Your task to perform on an android device: Show me some nice wallpapers for my tablet Image 0: 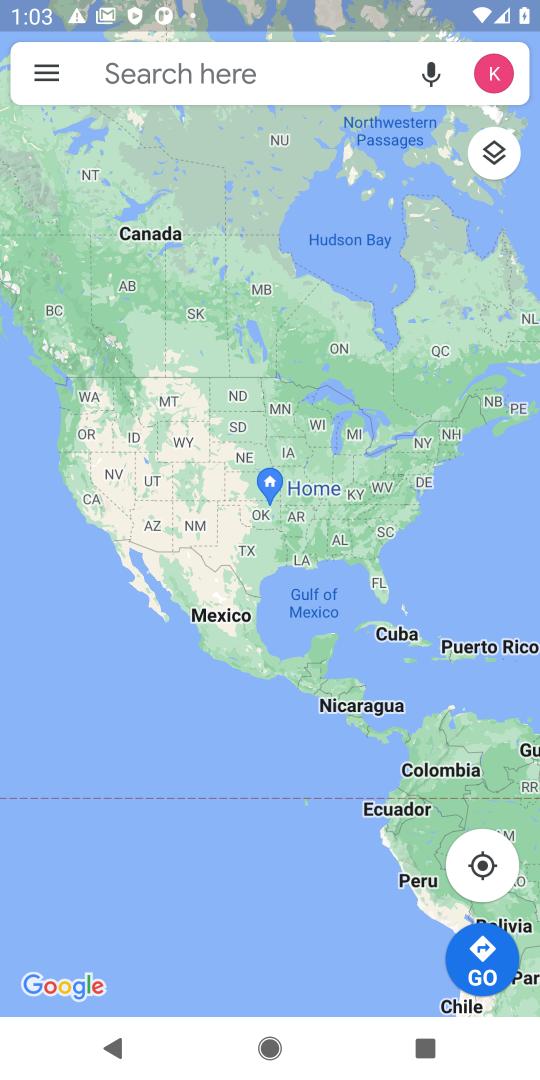
Step 0: press home button
Your task to perform on an android device: Show me some nice wallpapers for my tablet Image 1: 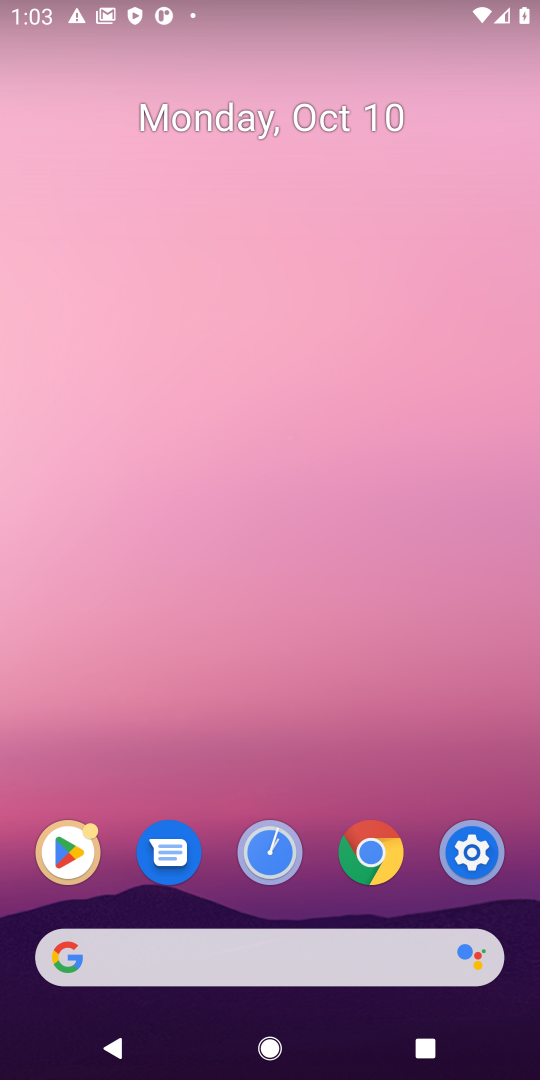
Step 1: click (331, 950)
Your task to perform on an android device: Show me some nice wallpapers for my tablet Image 2: 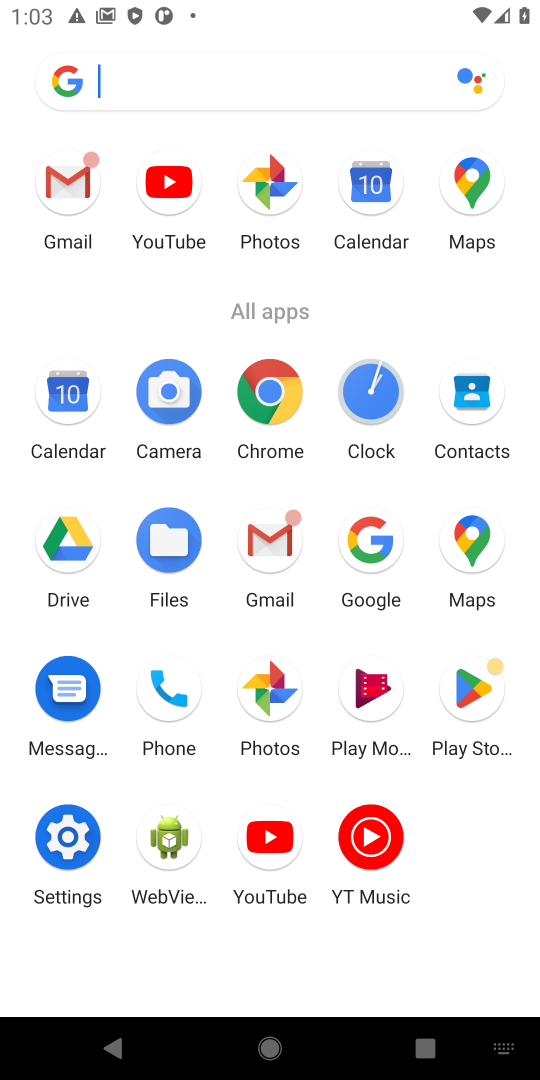
Step 2: type "Show me some nice wallpapers for my tablet"
Your task to perform on an android device: Show me some nice wallpapers for my tablet Image 3: 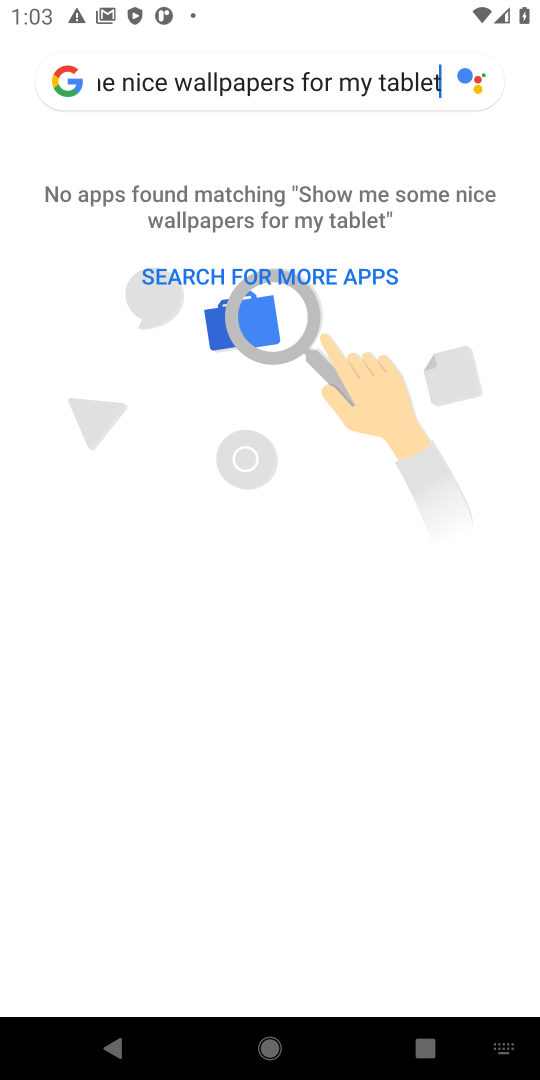
Step 3: type ""
Your task to perform on an android device: Show me some nice wallpapers for my tablet Image 4: 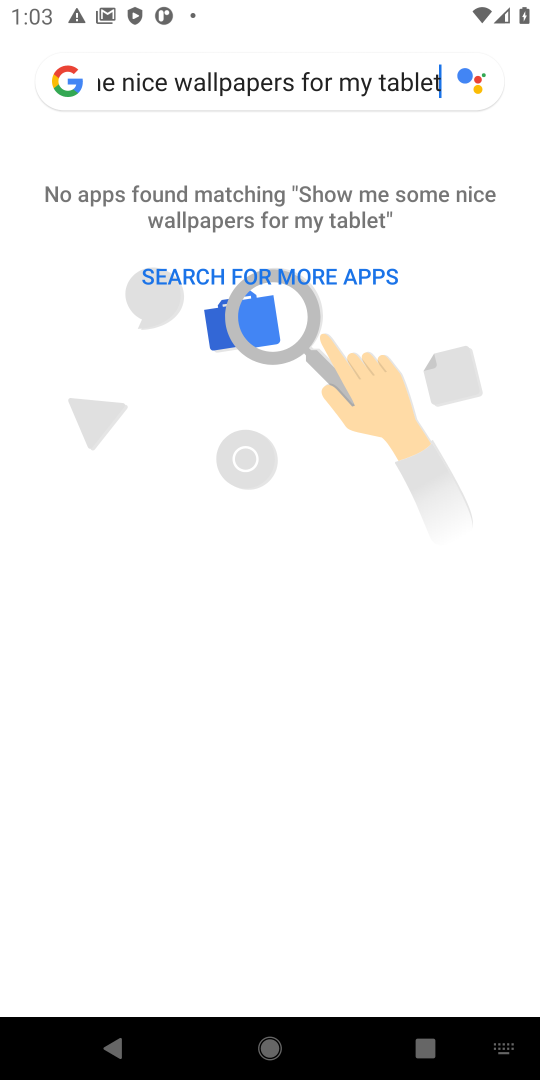
Step 4: press home button
Your task to perform on an android device: Show me some nice wallpapers for my tablet Image 5: 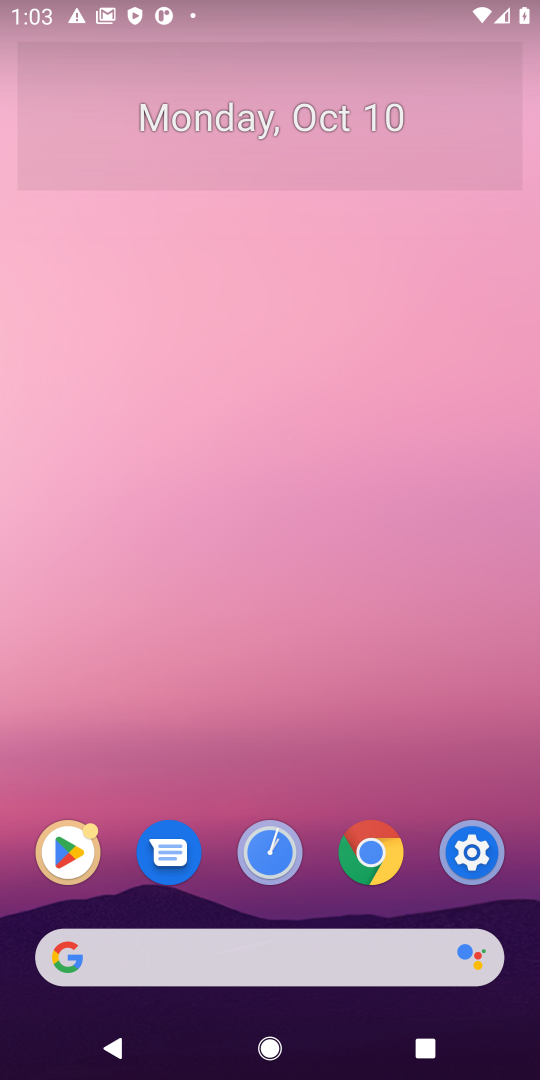
Step 5: click (316, 937)
Your task to perform on an android device: Show me some nice wallpapers for my tablet Image 6: 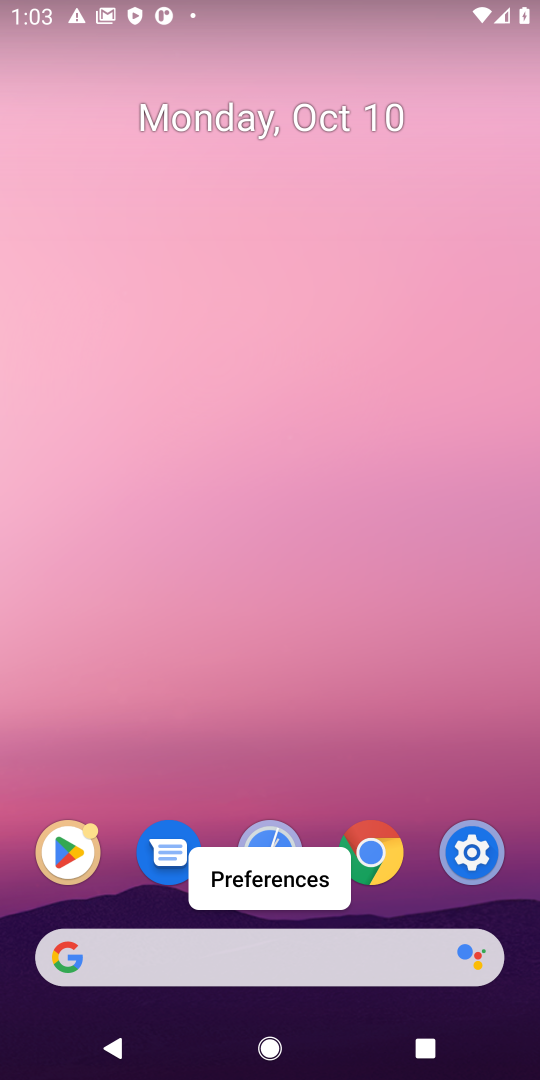
Step 6: click (353, 857)
Your task to perform on an android device: Show me some nice wallpapers for my tablet Image 7: 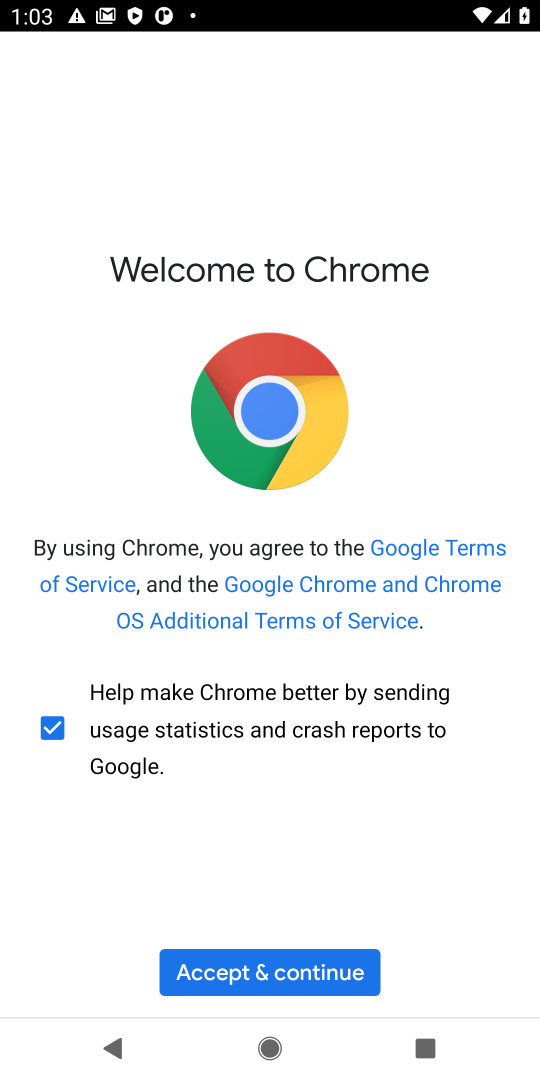
Step 7: click (265, 965)
Your task to perform on an android device: Show me some nice wallpapers for my tablet Image 8: 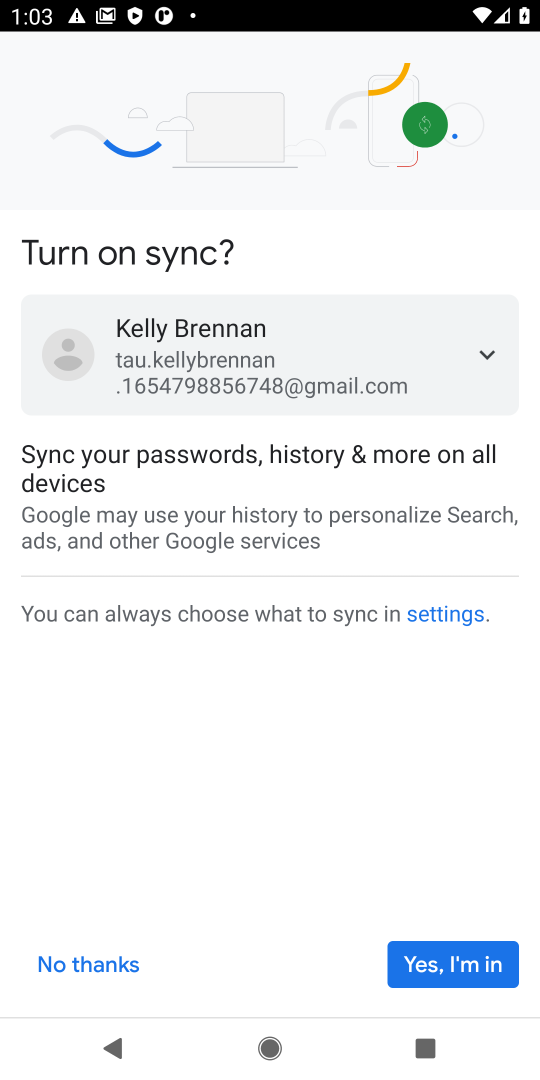
Step 8: click (430, 982)
Your task to perform on an android device: Show me some nice wallpapers for my tablet Image 9: 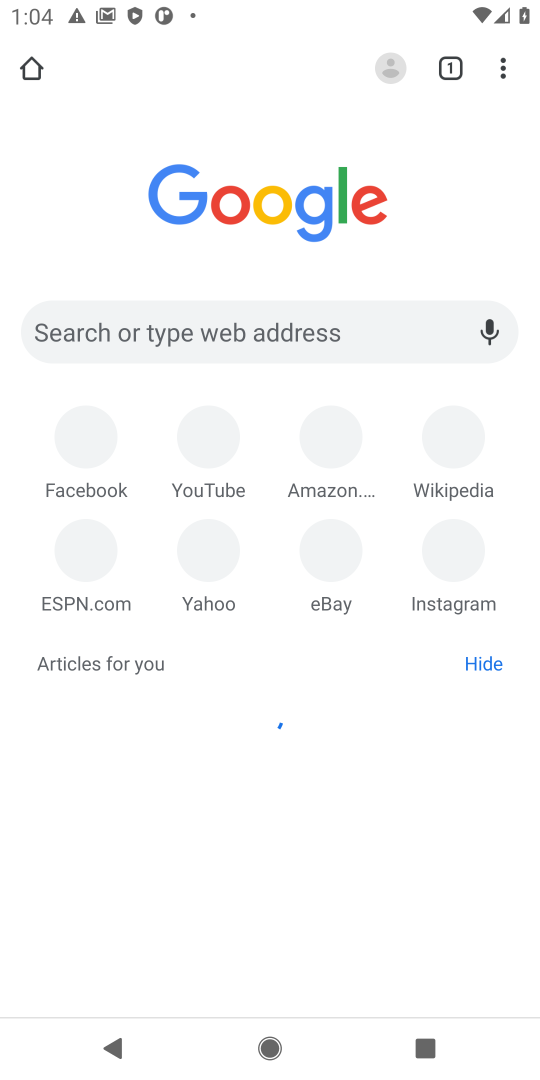
Step 9: click (261, 335)
Your task to perform on an android device: Show me some nice wallpapers for my tablet Image 10: 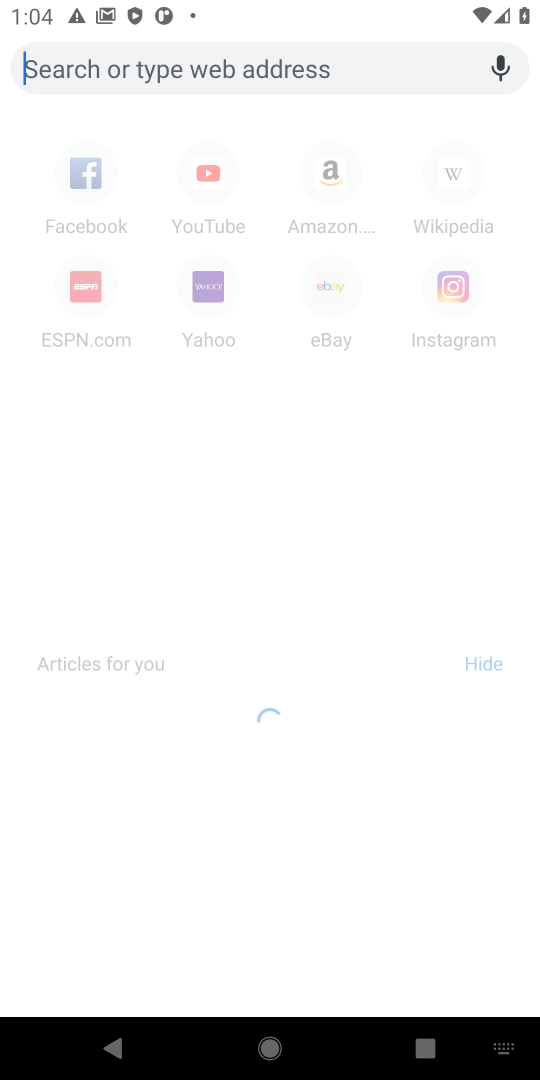
Step 10: type "Show me some nice wallpapers for my tablet"
Your task to perform on an android device: Show me some nice wallpapers for my tablet Image 11: 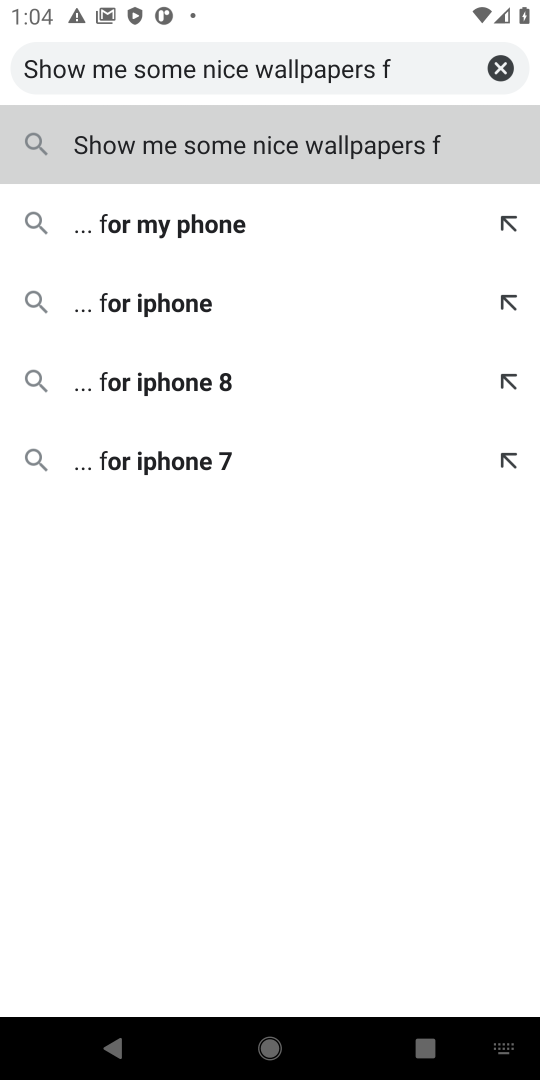
Step 11: type ""
Your task to perform on an android device: Show me some nice wallpapers for my tablet Image 12: 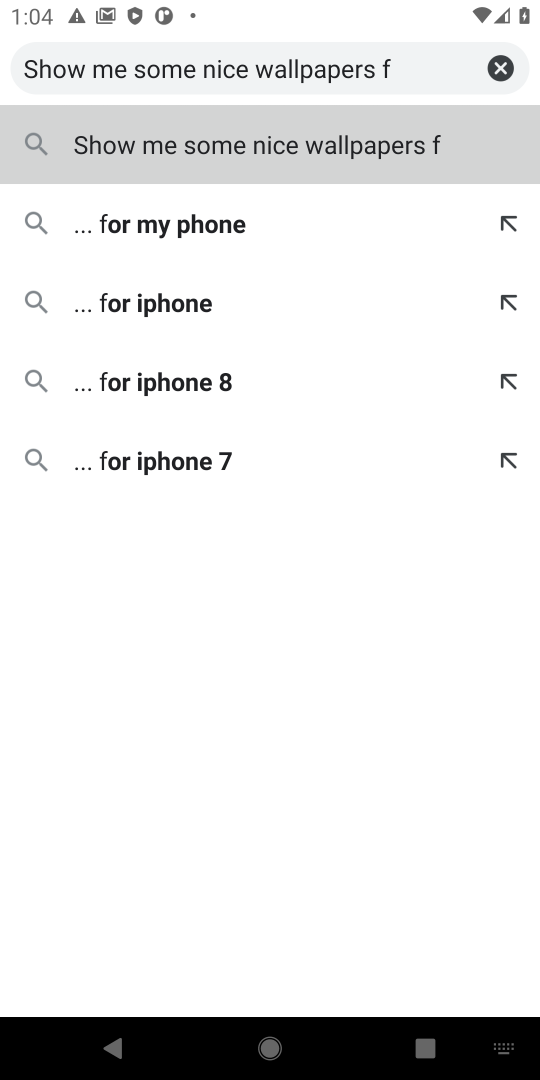
Step 12: click (376, 123)
Your task to perform on an android device: Show me some nice wallpapers for my tablet Image 13: 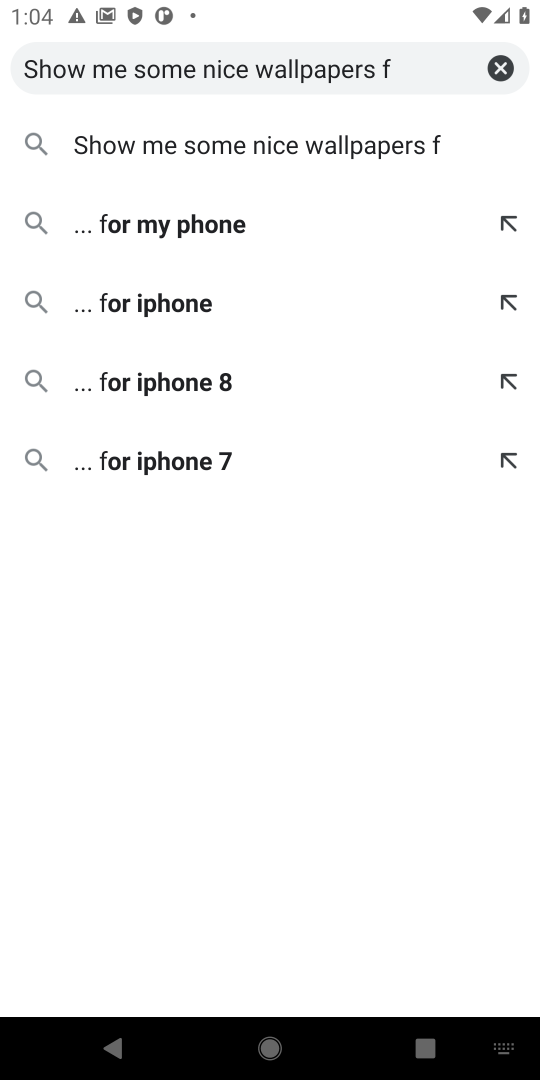
Step 13: click (379, 138)
Your task to perform on an android device: Show me some nice wallpapers for my tablet Image 14: 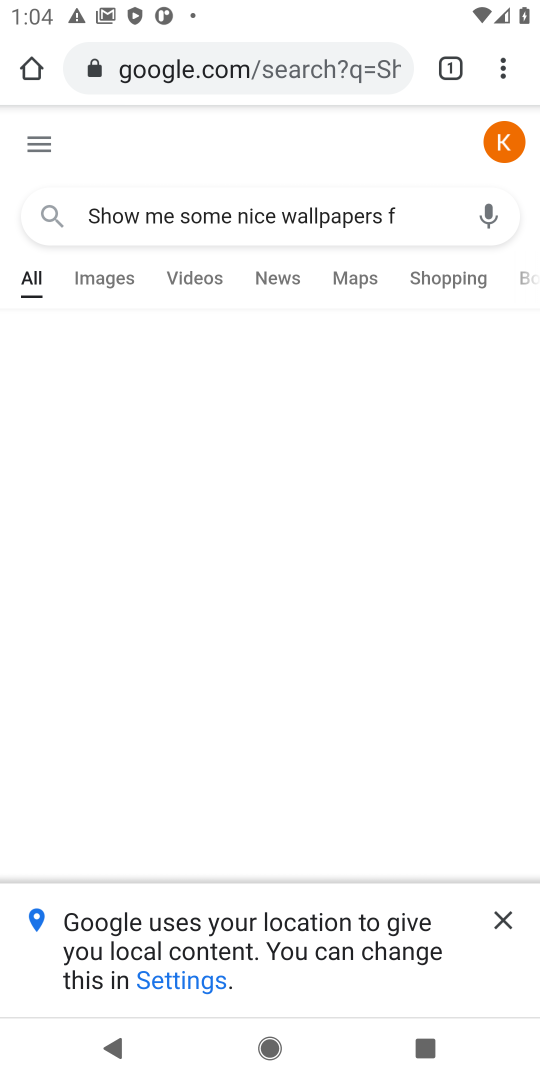
Step 14: click (499, 932)
Your task to perform on an android device: Show me some nice wallpapers for my tablet Image 15: 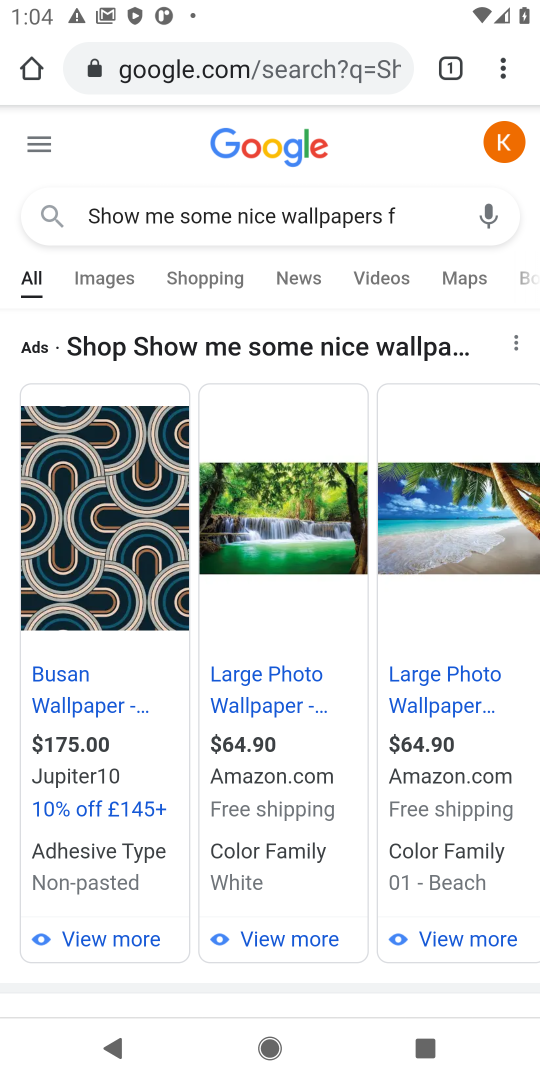
Step 15: drag from (357, 921) to (423, 299)
Your task to perform on an android device: Show me some nice wallpapers for my tablet Image 16: 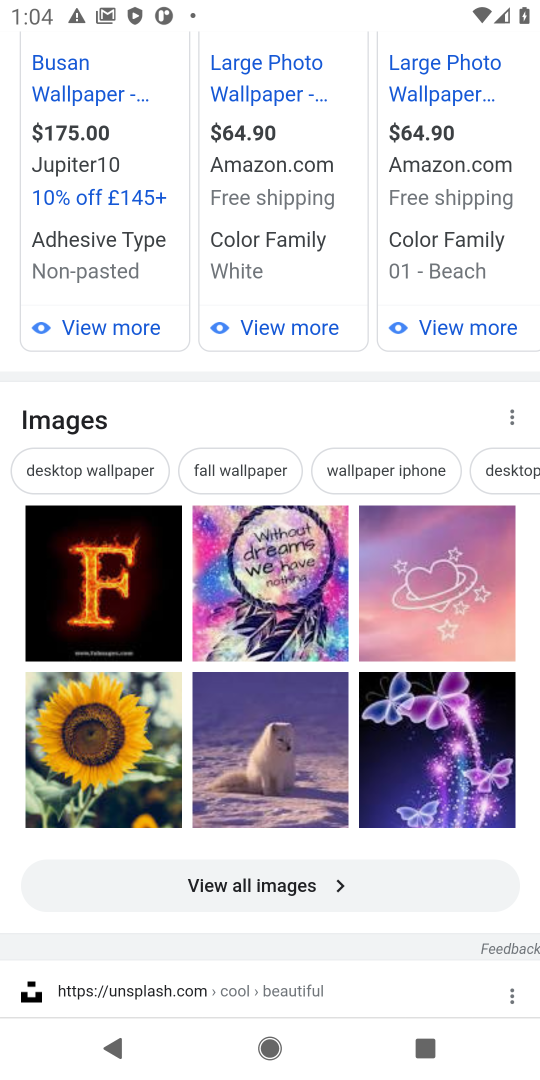
Step 16: drag from (351, 485) to (361, 301)
Your task to perform on an android device: Show me some nice wallpapers for my tablet Image 17: 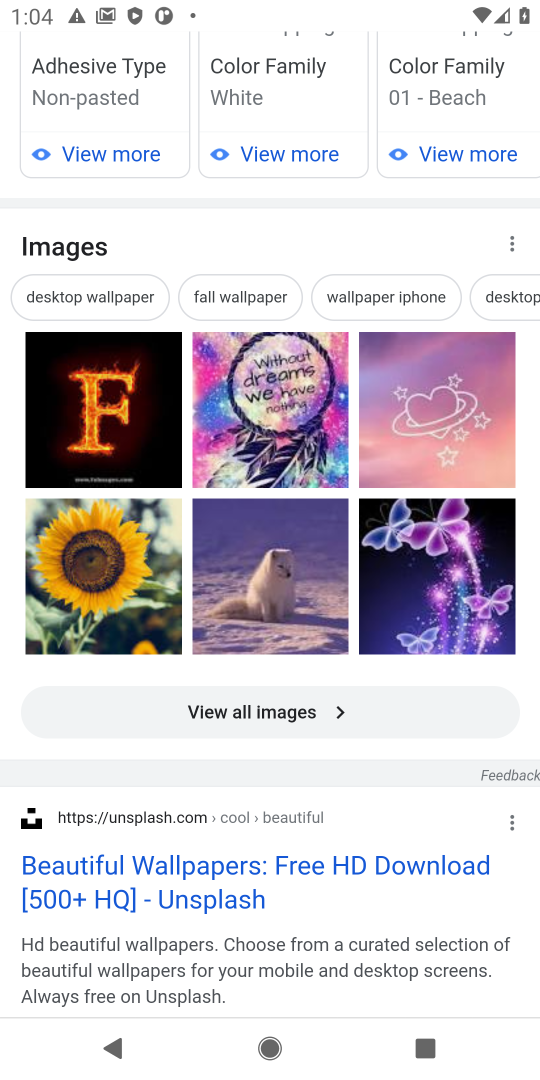
Step 17: click (258, 693)
Your task to perform on an android device: Show me some nice wallpapers for my tablet Image 18: 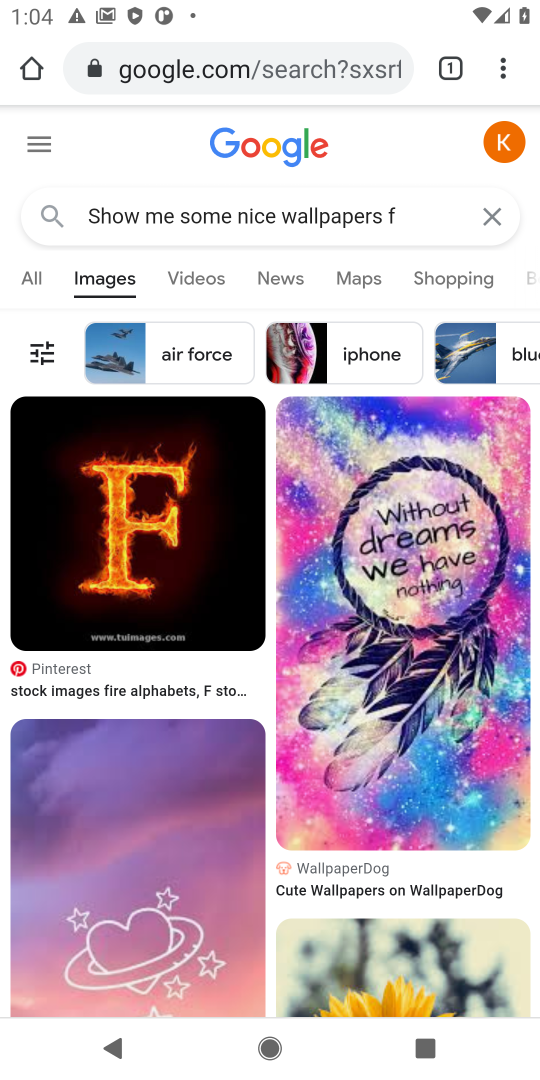
Step 18: drag from (328, 866) to (332, 447)
Your task to perform on an android device: Show me some nice wallpapers for my tablet Image 19: 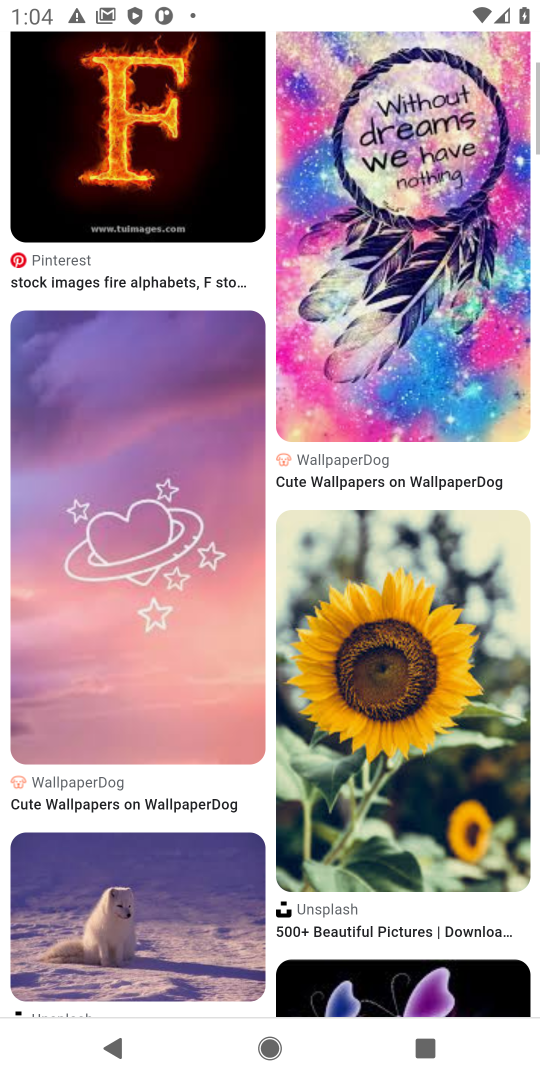
Step 19: drag from (302, 862) to (291, 442)
Your task to perform on an android device: Show me some nice wallpapers for my tablet Image 20: 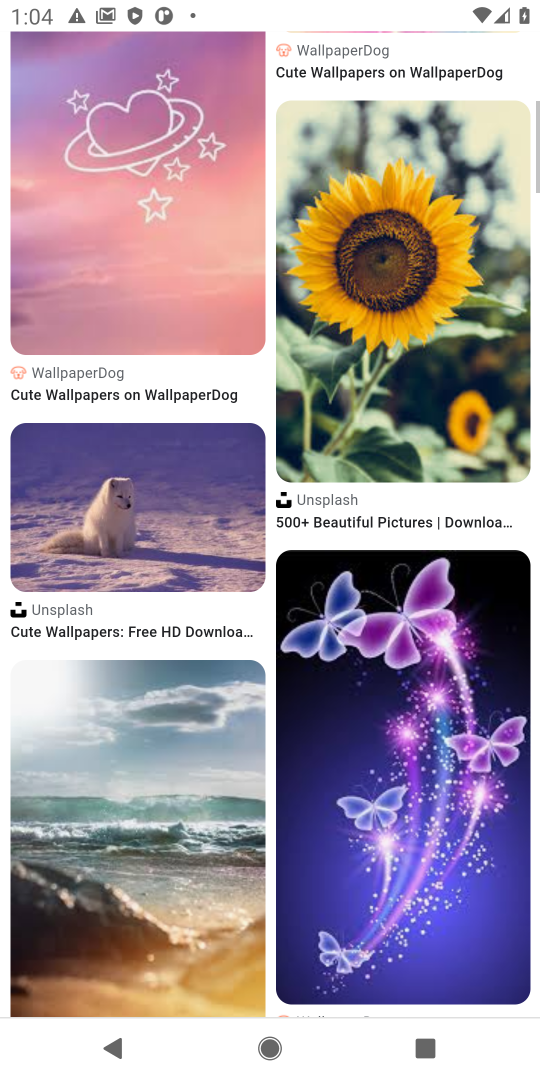
Step 20: drag from (317, 667) to (354, 536)
Your task to perform on an android device: Show me some nice wallpapers for my tablet Image 21: 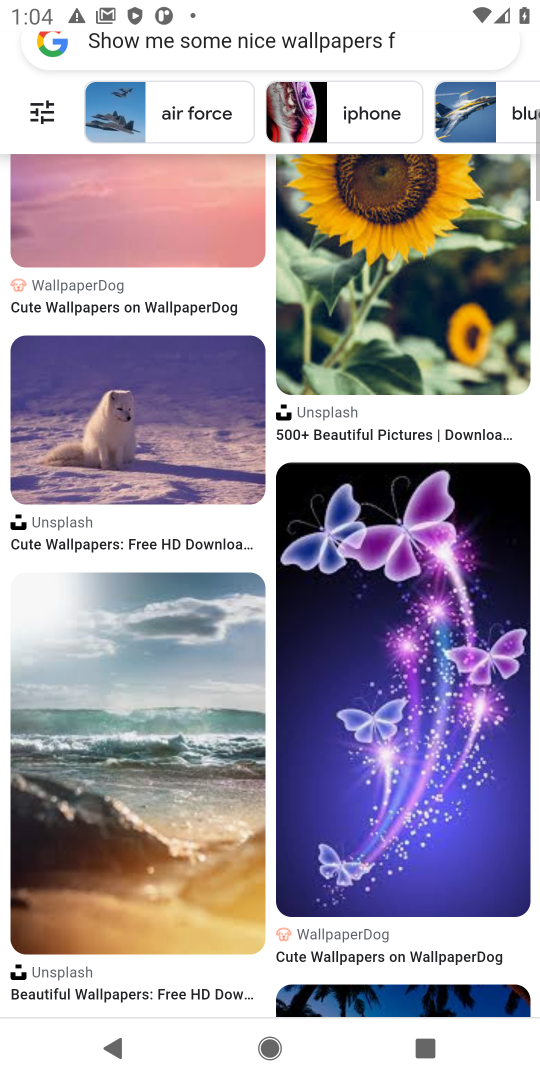
Step 21: drag from (373, 532) to (383, 432)
Your task to perform on an android device: Show me some nice wallpapers for my tablet Image 22: 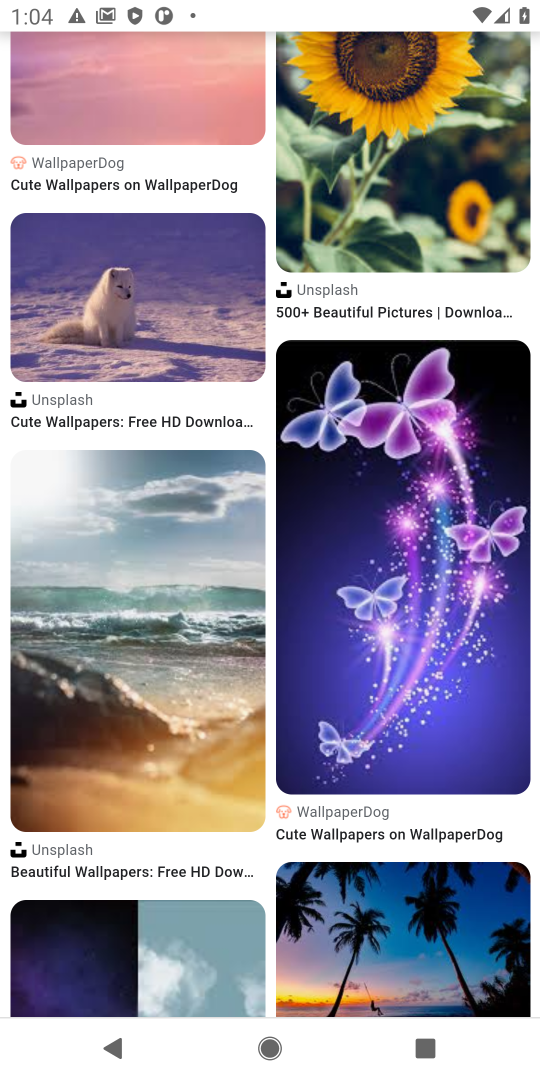
Step 22: click (177, 469)
Your task to perform on an android device: Show me some nice wallpapers for my tablet Image 23: 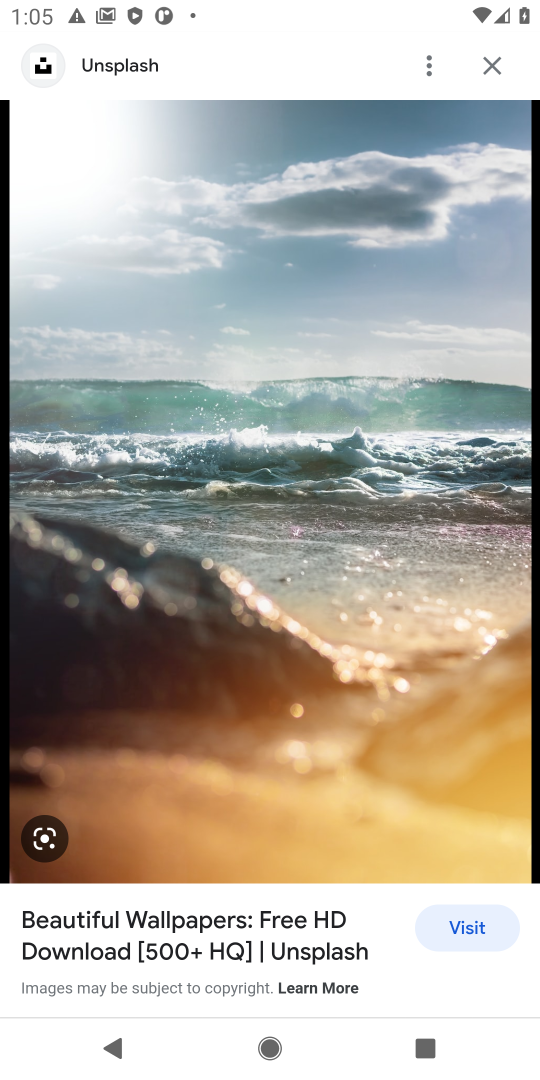
Step 23: click (252, 401)
Your task to perform on an android device: Show me some nice wallpapers for my tablet Image 24: 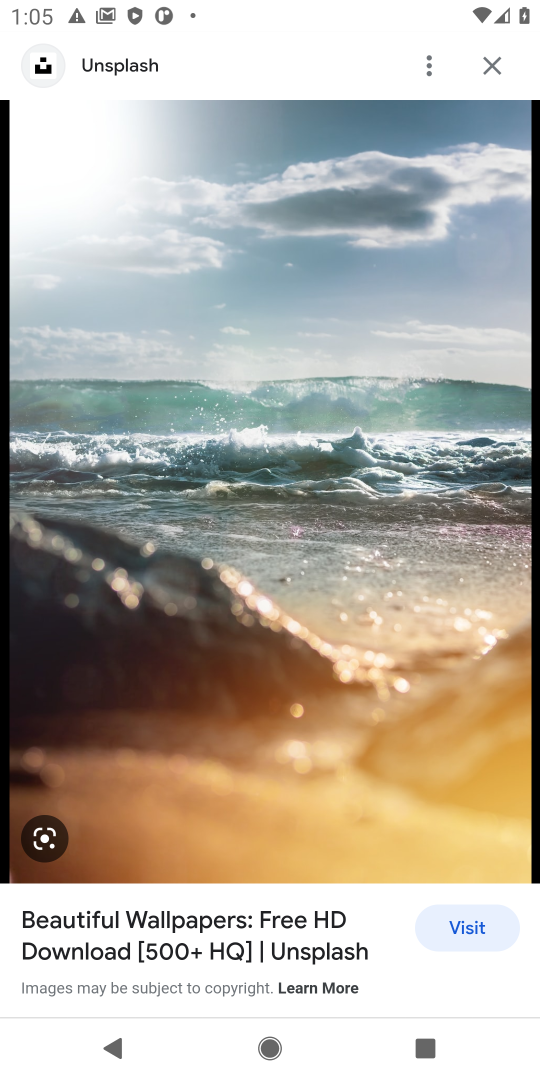
Step 24: drag from (316, 577) to (326, 330)
Your task to perform on an android device: Show me some nice wallpapers for my tablet Image 25: 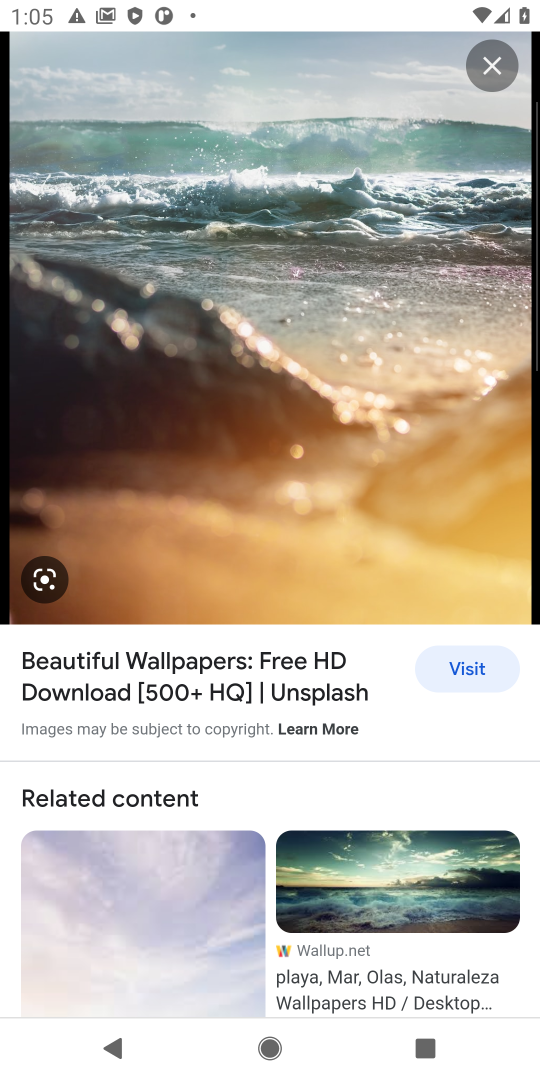
Step 25: drag from (326, 504) to (299, 122)
Your task to perform on an android device: Show me some nice wallpapers for my tablet Image 26: 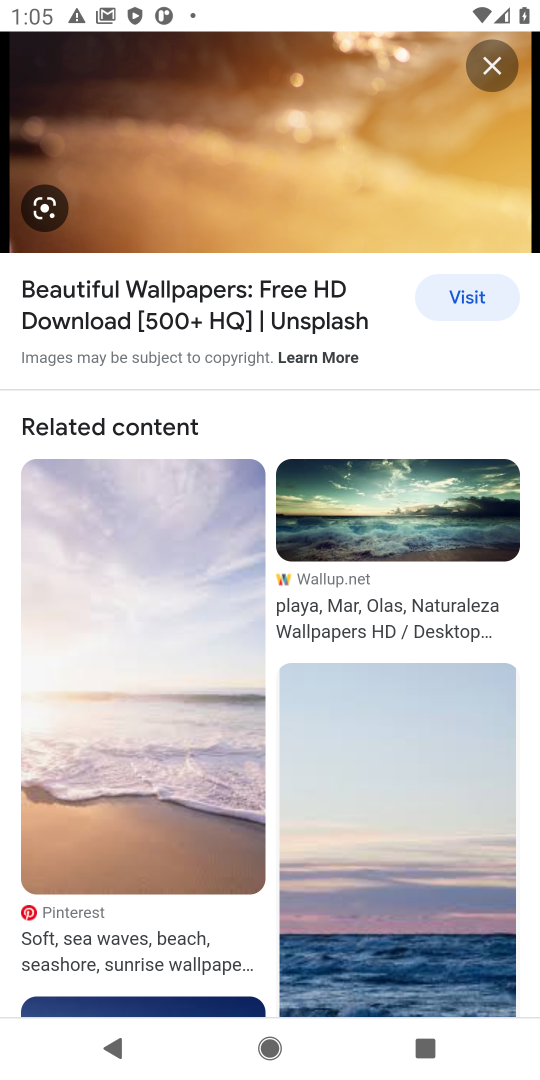
Step 26: click (350, 291)
Your task to perform on an android device: Show me some nice wallpapers for my tablet Image 27: 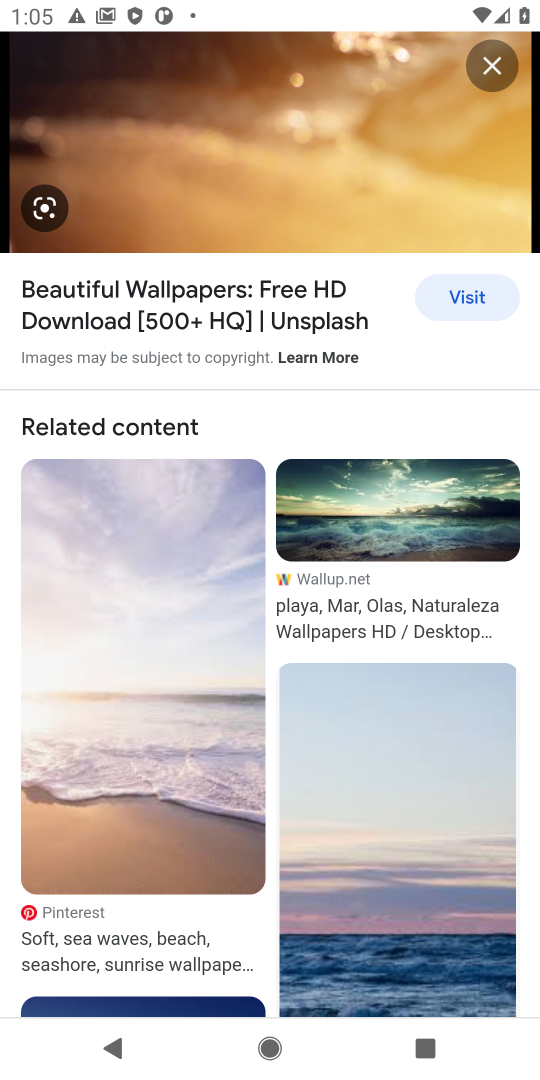
Step 27: drag from (367, 757) to (381, 402)
Your task to perform on an android device: Show me some nice wallpapers for my tablet Image 28: 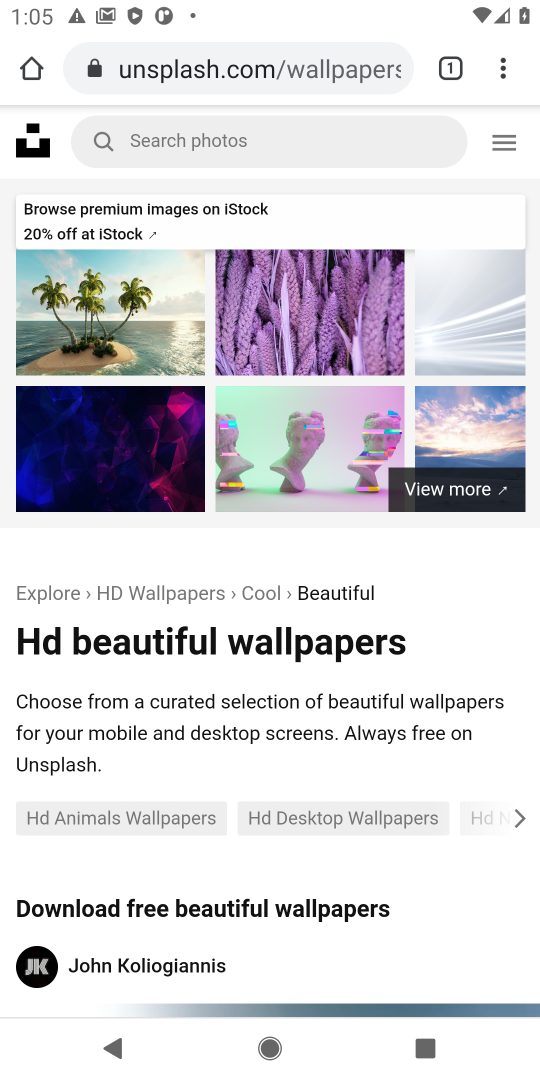
Step 28: drag from (349, 724) to (382, 278)
Your task to perform on an android device: Show me some nice wallpapers for my tablet Image 29: 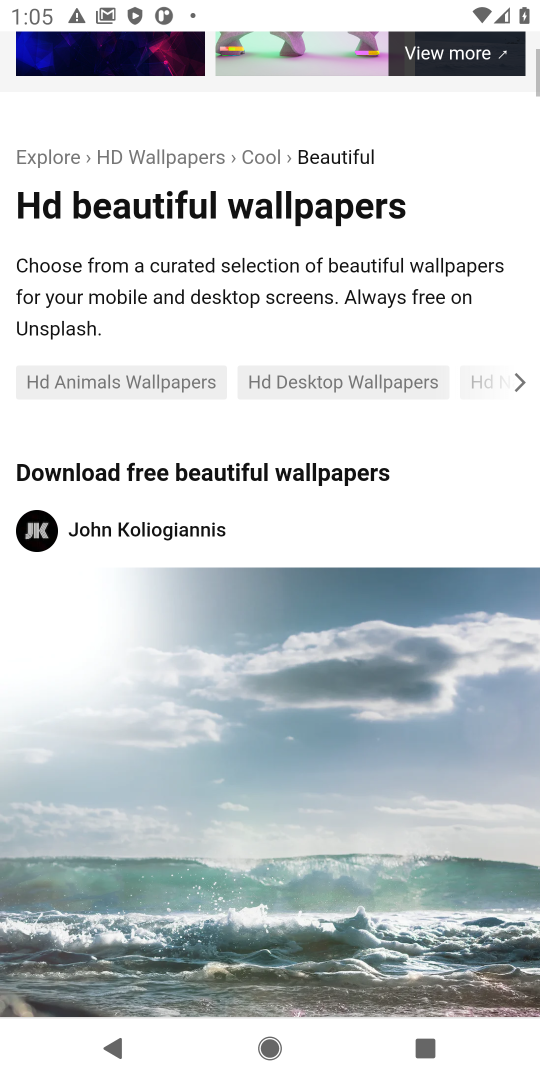
Step 29: drag from (376, 668) to (417, 409)
Your task to perform on an android device: Show me some nice wallpapers for my tablet Image 30: 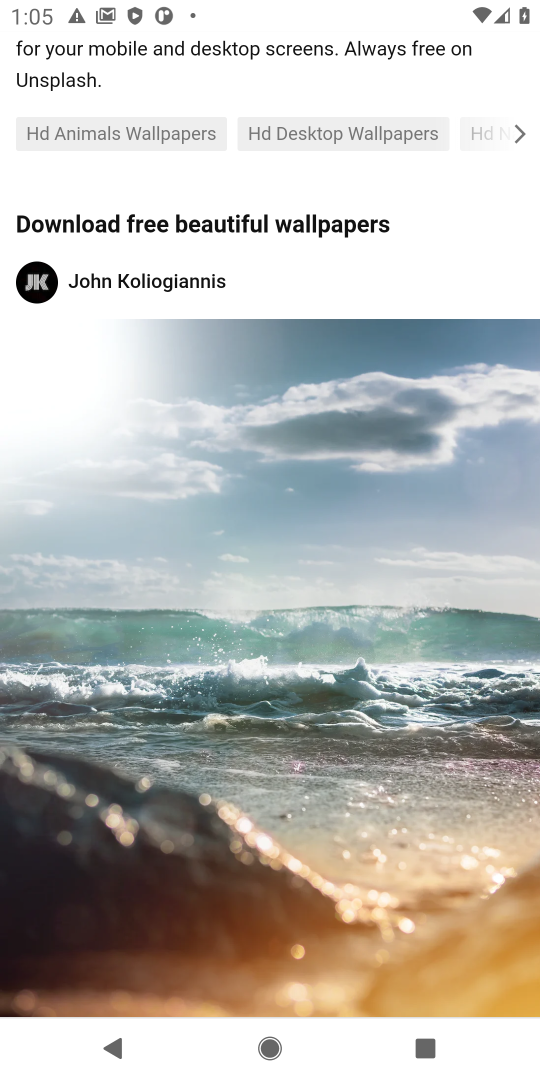
Step 30: drag from (393, 883) to (430, 318)
Your task to perform on an android device: Show me some nice wallpapers for my tablet Image 31: 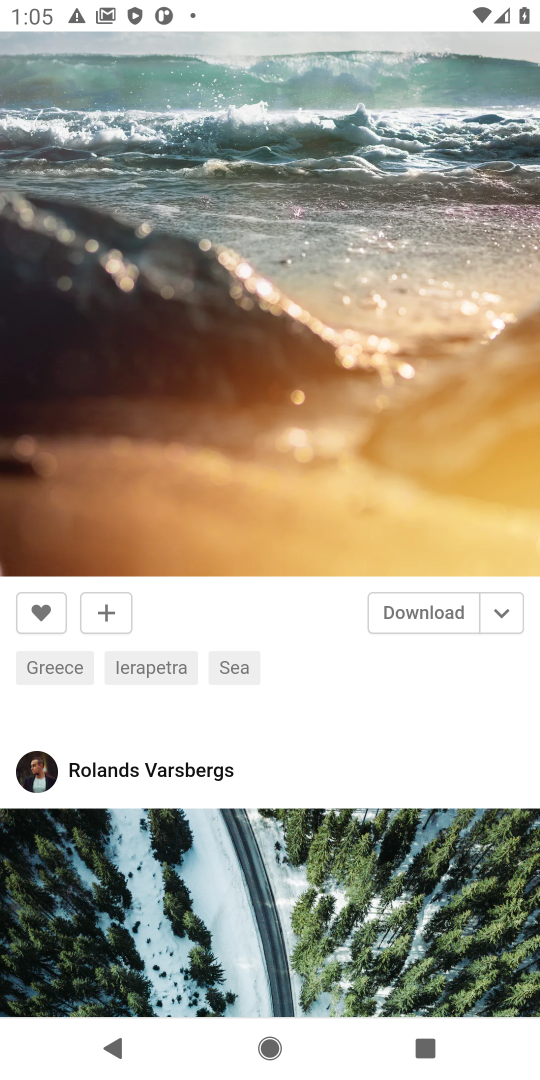
Step 31: drag from (413, 551) to (410, 454)
Your task to perform on an android device: Show me some nice wallpapers for my tablet Image 32: 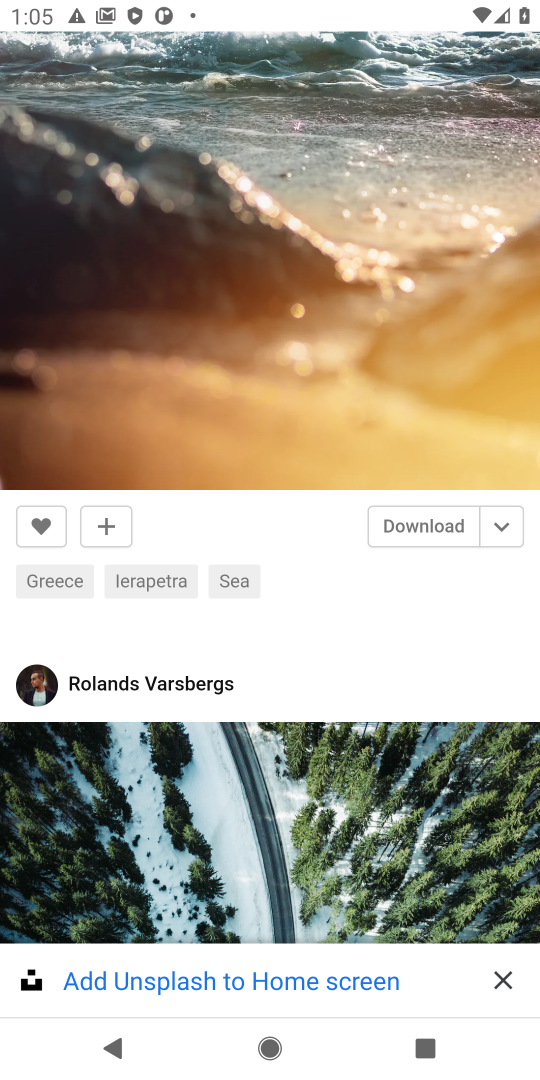
Step 32: drag from (421, 537) to (406, 263)
Your task to perform on an android device: Show me some nice wallpapers for my tablet Image 33: 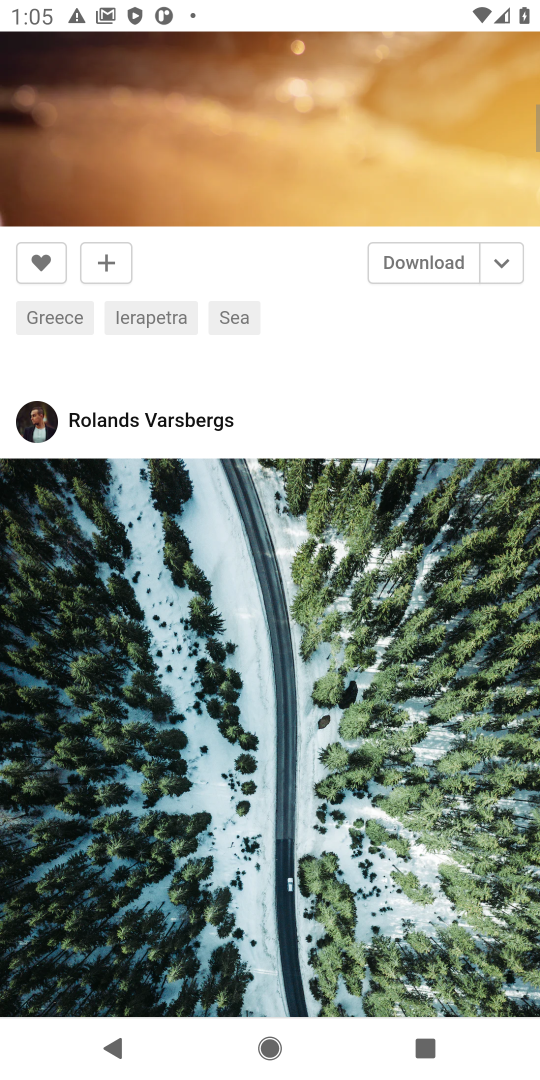
Step 33: drag from (378, 388) to (354, 235)
Your task to perform on an android device: Show me some nice wallpapers for my tablet Image 34: 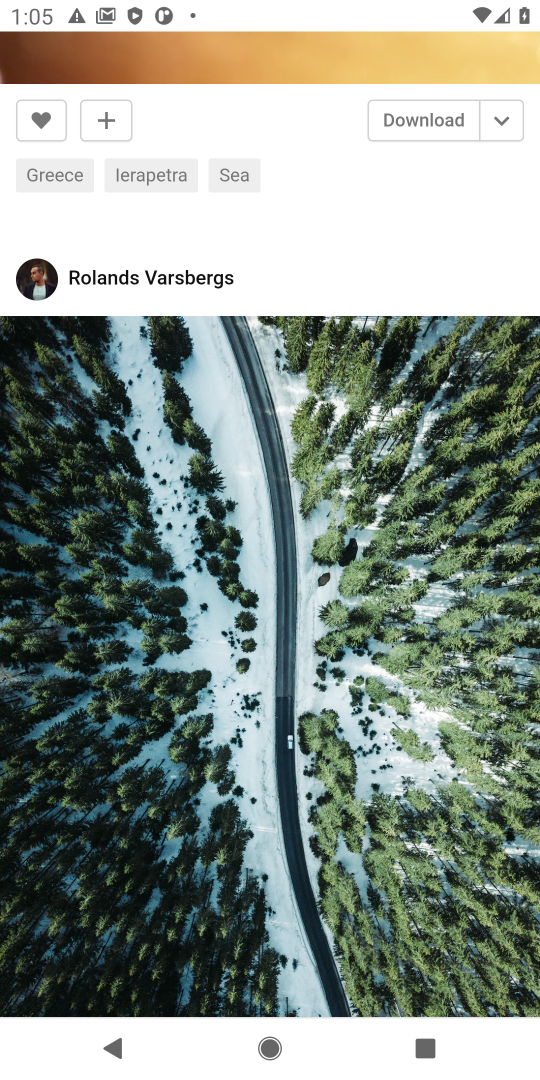
Step 34: drag from (336, 684) to (335, 325)
Your task to perform on an android device: Show me some nice wallpapers for my tablet Image 35: 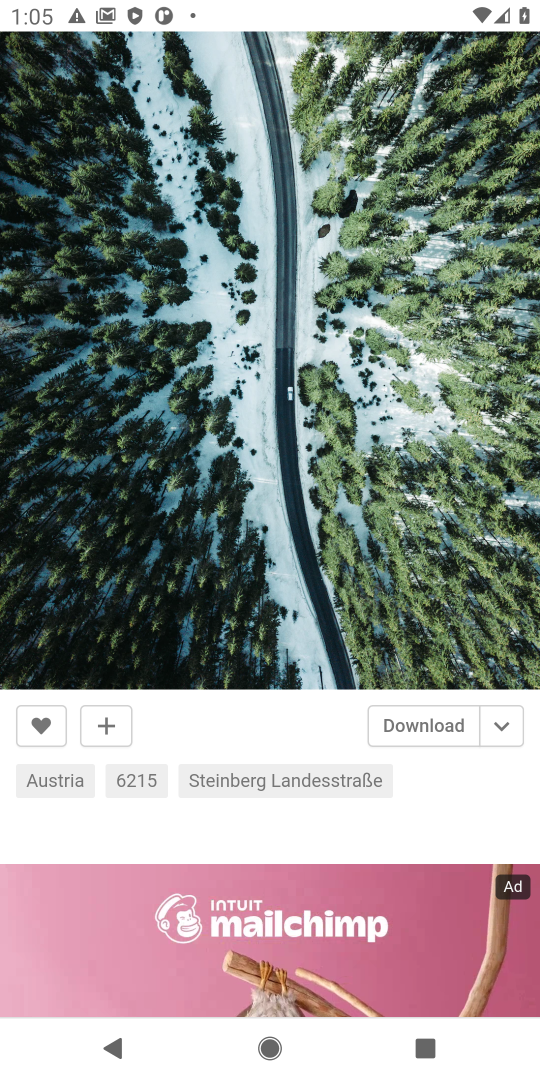
Step 35: drag from (352, 456) to (323, 65)
Your task to perform on an android device: Show me some nice wallpapers for my tablet Image 36: 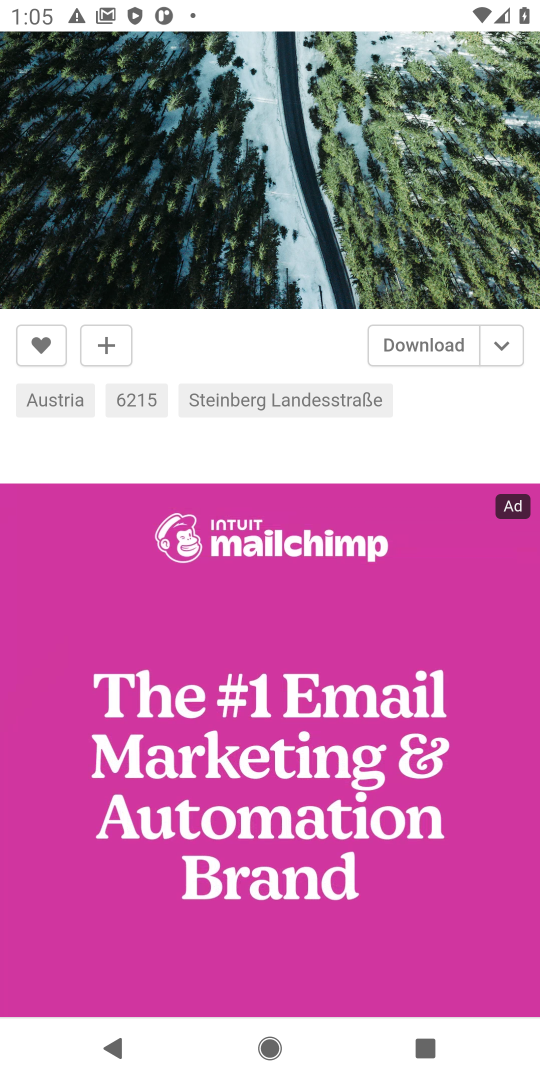
Step 36: drag from (417, 560) to (407, 391)
Your task to perform on an android device: Show me some nice wallpapers for my tablet Image 37: 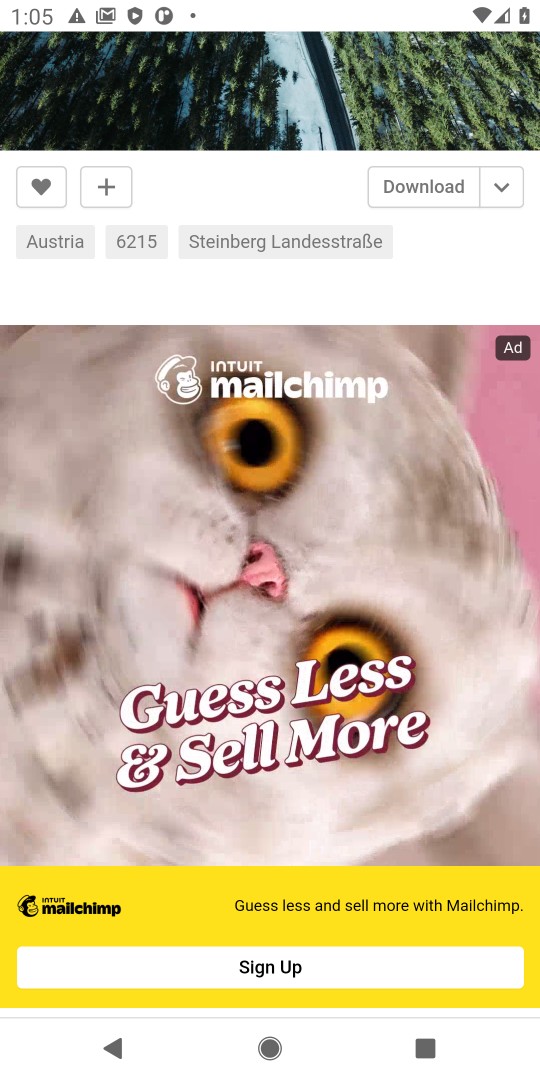
Step 37: drag from (429, 438) to (414, 270)
Your task to perform on an android device: Show me some nice wallpapers for my tablet Image 38: 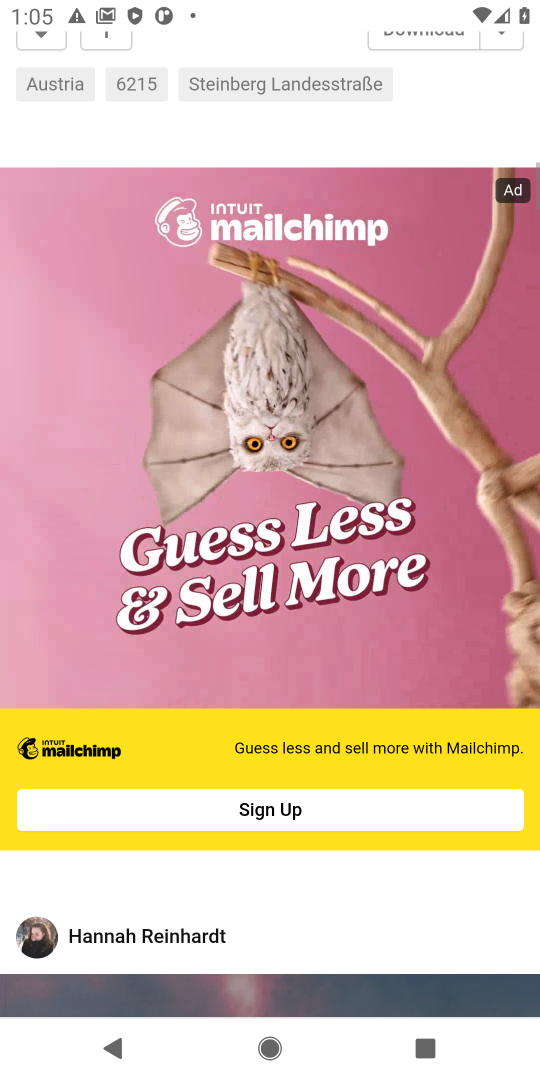
Step 38: drag from (476, 558) to (485, 439)
Your task to perform on an android device: Show me some nice wallpapers for my tablet Image 39: 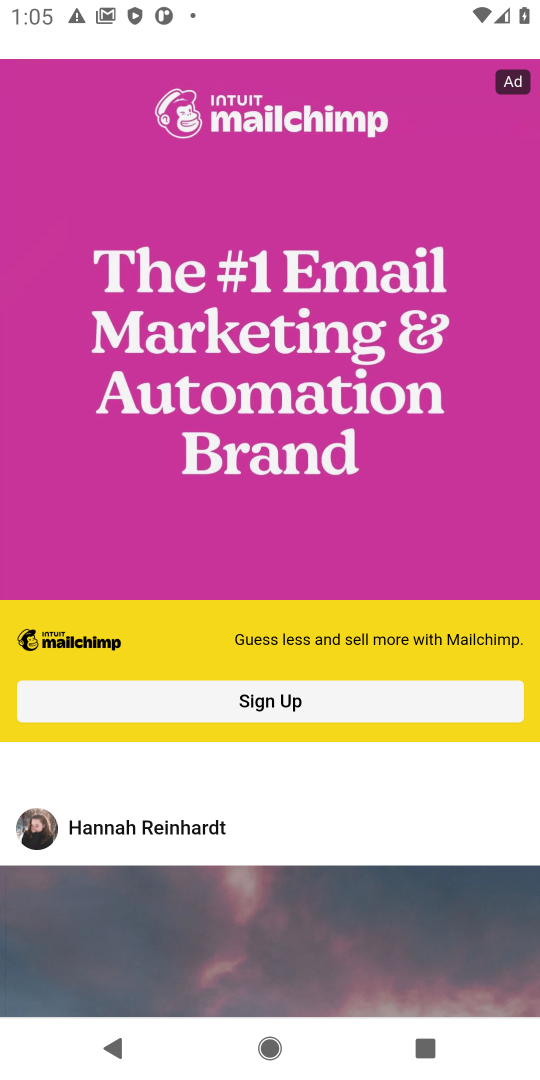
Step 39: drag from (459, 650) to (437, 325)
Your task to perform on an android device: Show me some nice wallpapers for my tablet Image 40: 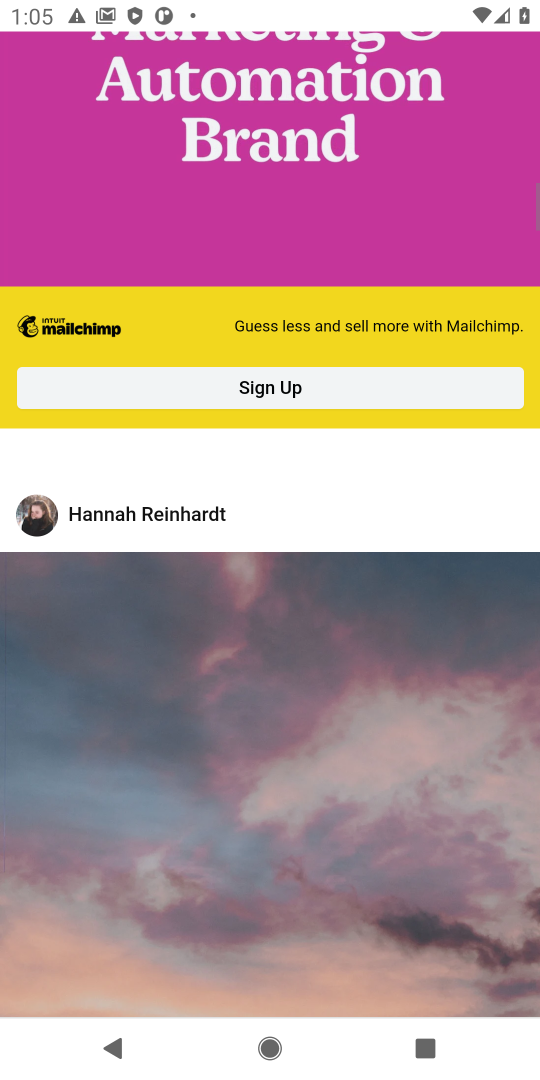
Step 40: drag from (449, 793) to (430, 141)
Your task to perform on an android device: Show me some nice wallpapers for my tablet Image 41: 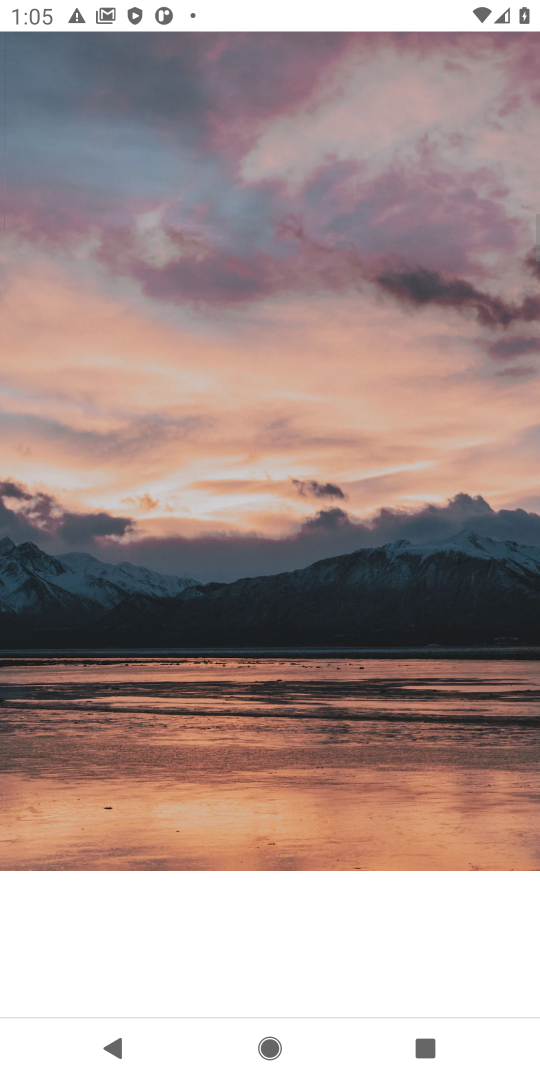
Step 41: click (451, 672)
Your task to perform on an android device: Show me some nice wallpapers for my tablet Image 42: 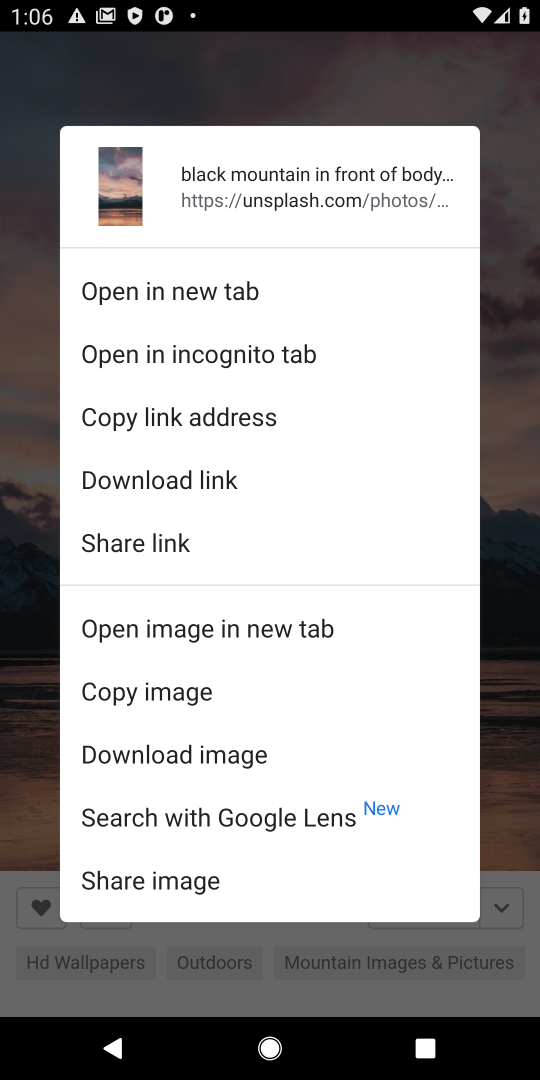
Step 42: click (492, 586)
Your task to perform on an android device: Show me some nice wallpapers for my tablet Image 43: 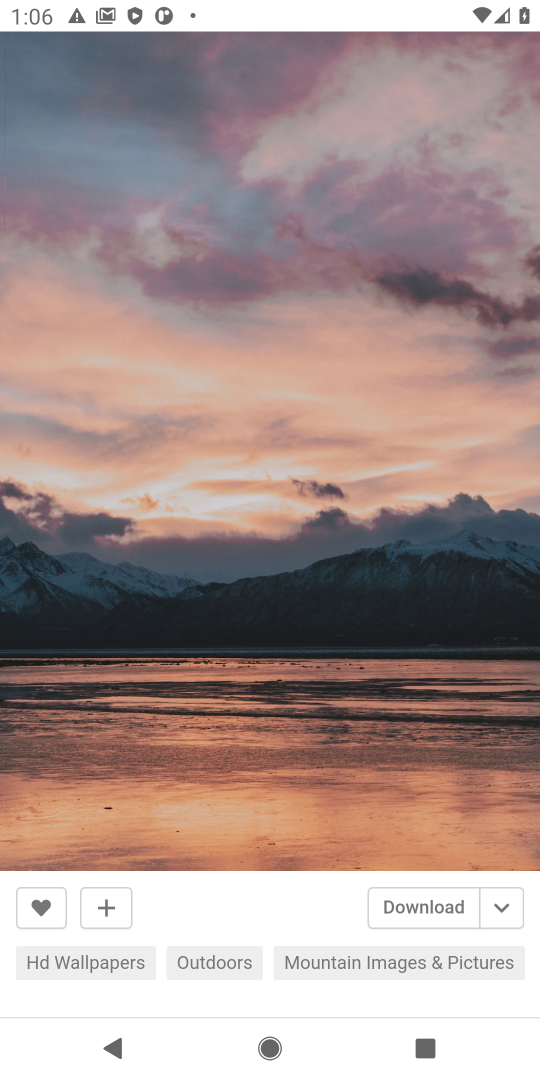
Step 43: press back button
Your task to perform on an android device: Show me some nice wallpapers for my tablet Image 44: 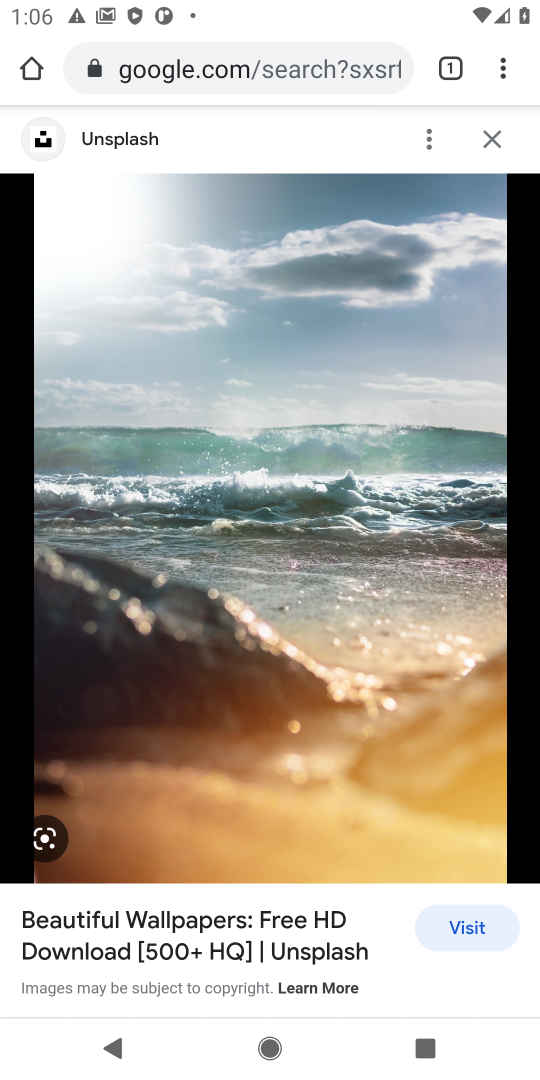
Step 44: click (493, 149)
Your task to perform on an android device: Show me some nice wallpapers for my tablet Image 45: 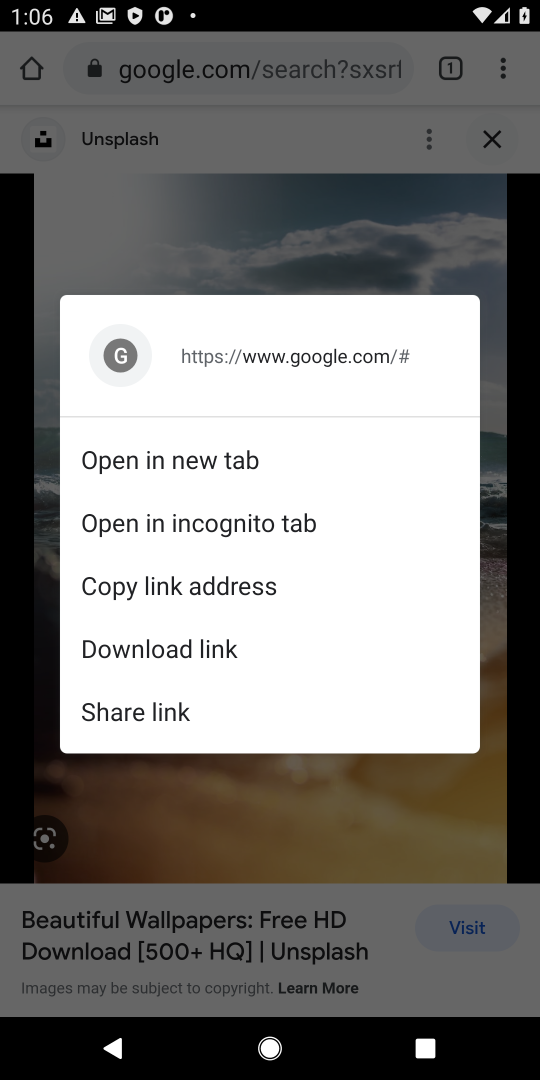
Step 45: press back button
Your task to perform on an android device: Show me some nice wallpapers for my tablet Image 46: 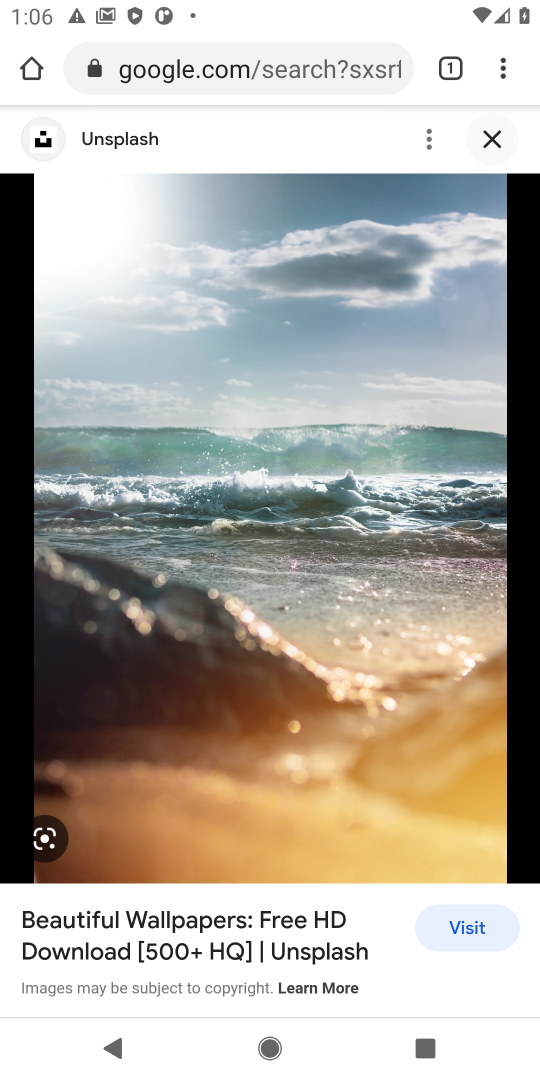
Step 46: press back button
Your task to perform on an android device: Show me some nice wallpapers for my tablet Image 47: 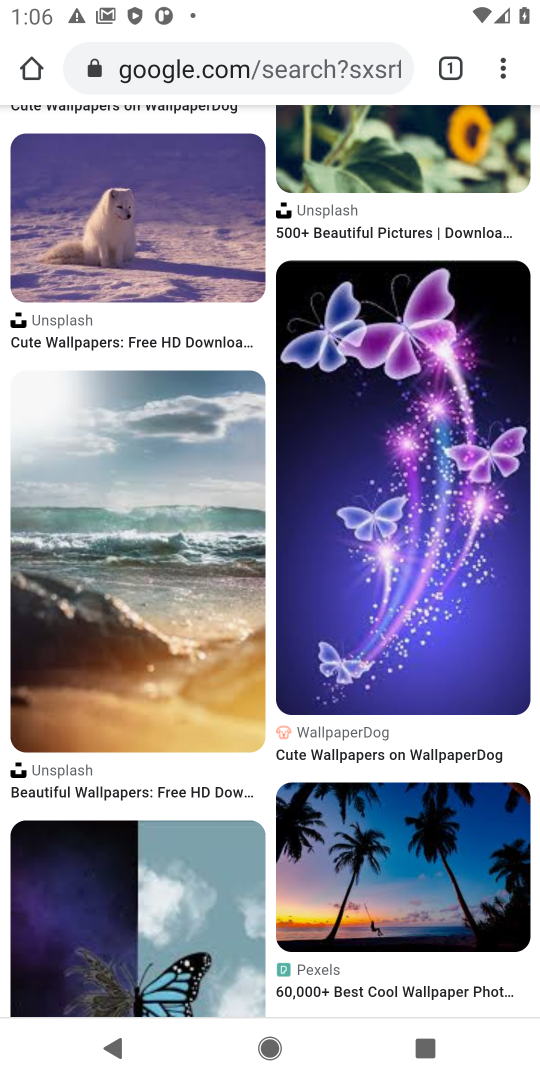
Step 47: drag from (314, 582) to (319, 374)
Your task to perform on an android device: Show me some nice wallpapers for my tablet Image 48: 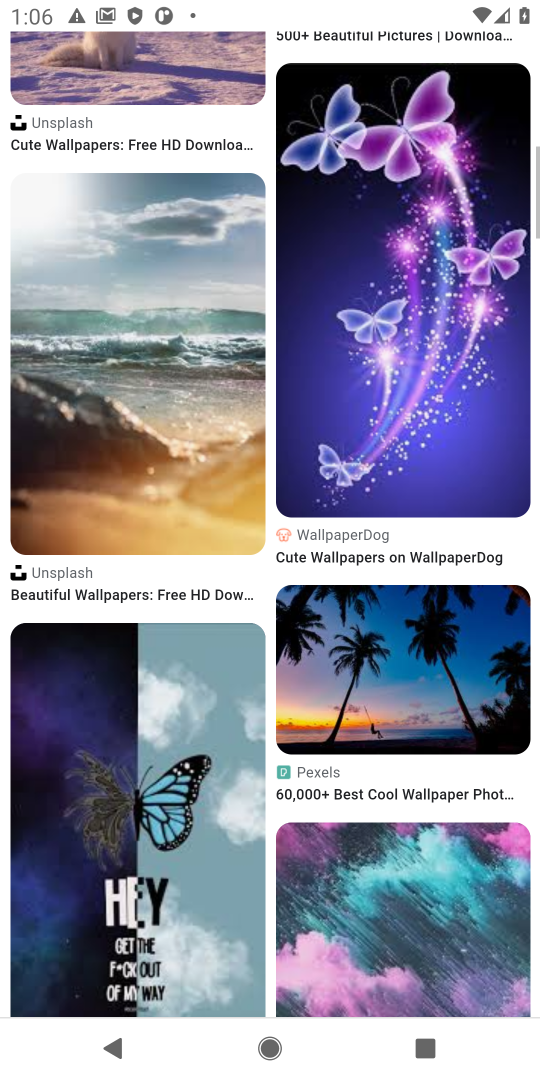
Step 48: drag from (333, 721) to (326, 159)
Your task to perform on an android device: Show me some nice wallpapers for my tablet Image 49: 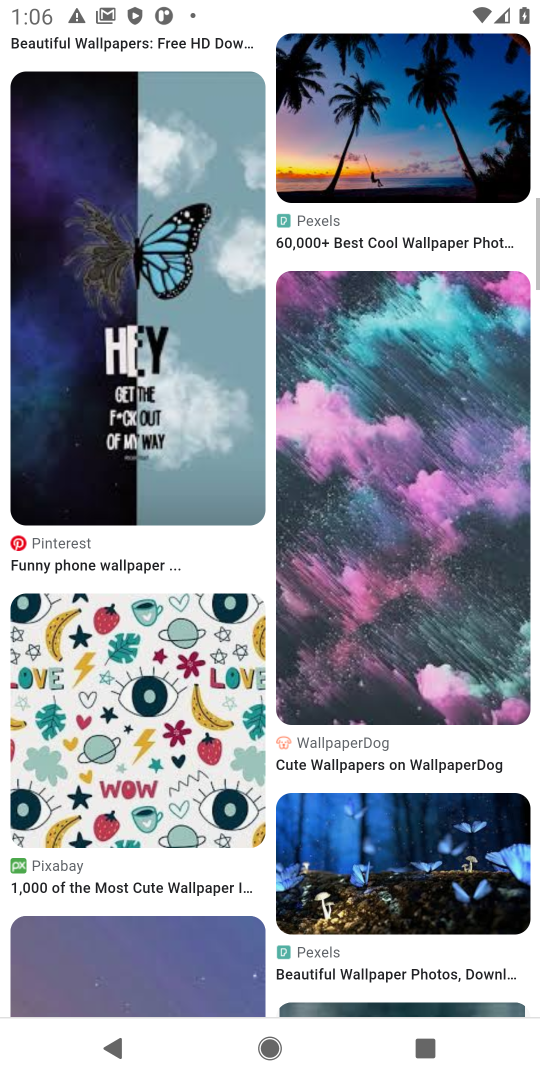
Step 49: drag from (412, 599) to (374, 306)
Your task to perform on an android device: Show me some nice wallpapers for my tablet Image 50: 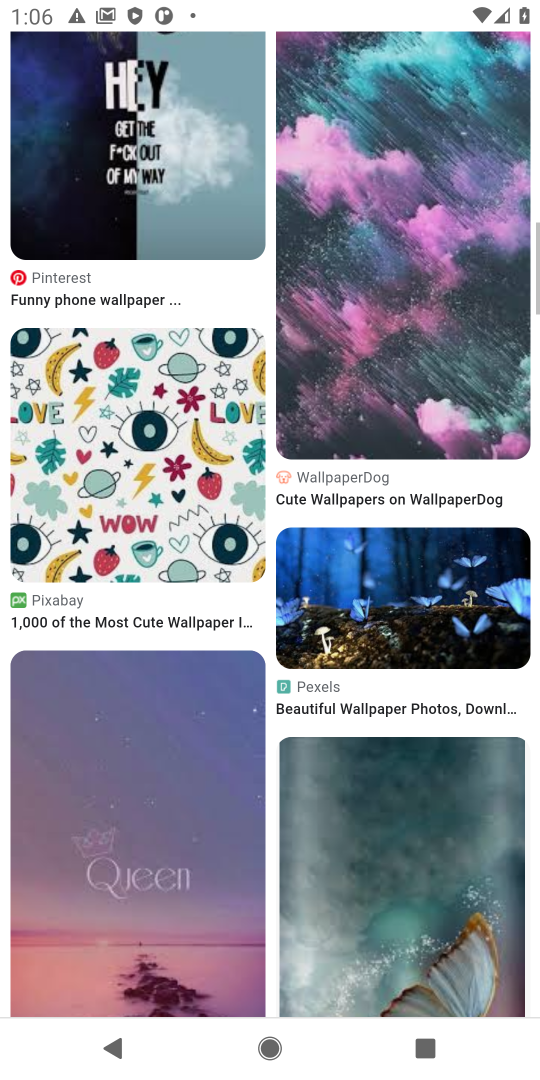
Step 50: drag from (395, 474) to (365, 188)
Your task to perform on an android device: Show me some nice wallpapers for my tablet Image 51: 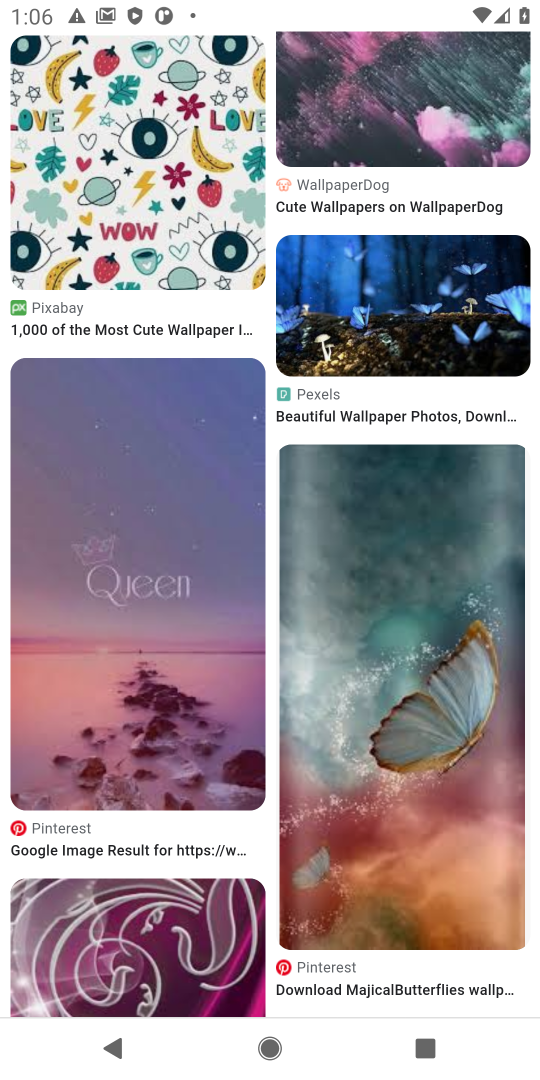
Step 51: click (132, 577)
Your task to perform on an android device: Show me some nice wallpapers for my tablet Image 52: 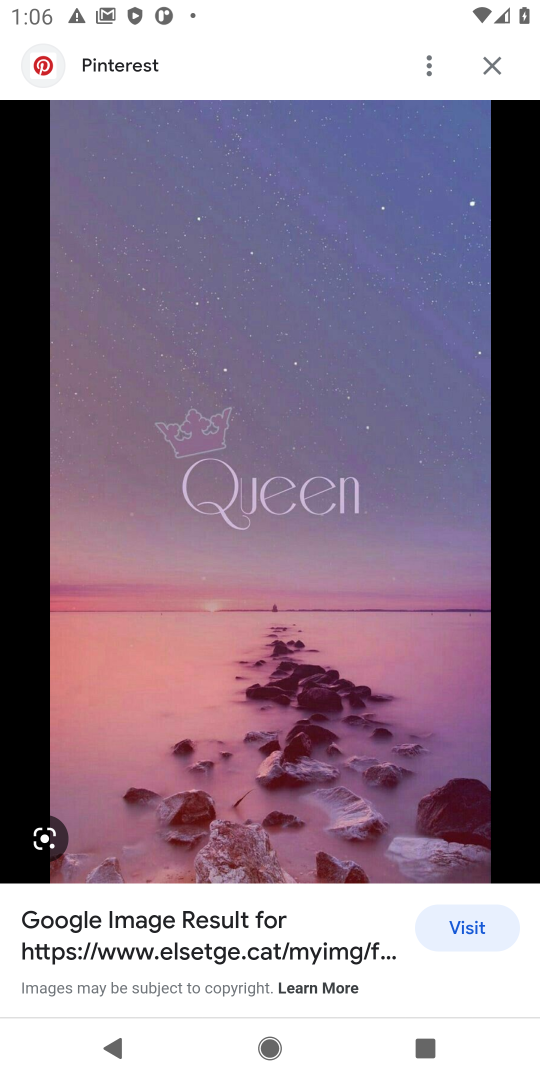
Step 52: task complete